Your task to perform on an android device: Do I have any events this weekend? Image 0: 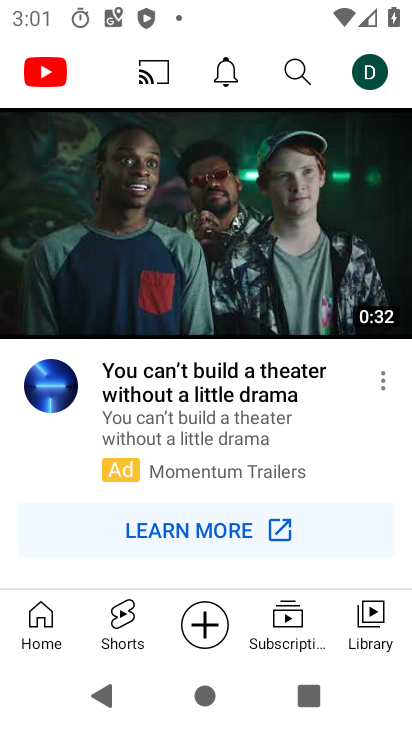
Step 0: press home button
Your task to perform on an android device: Do I have any events this weekend? Image 1: 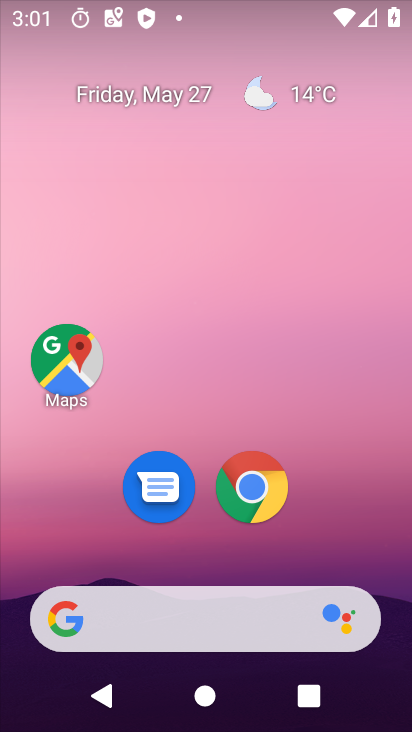
Step 1: drag from (326, 530) to (361, 103)
Your task to perform on an android device: Do I have any events this weekend? Image 2: 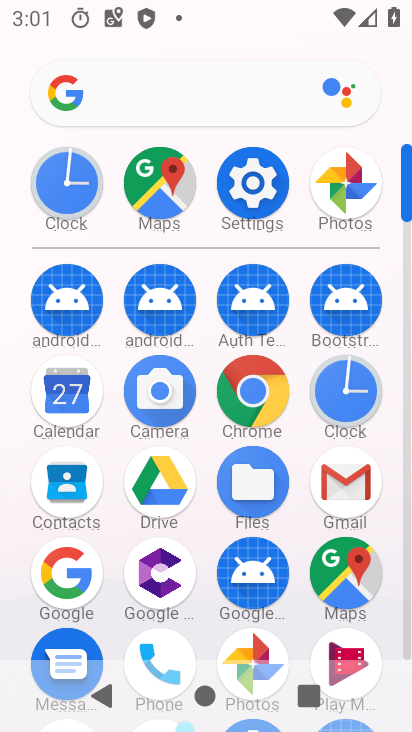
Step 2: click (58, 395)
Your task to perform on an android device: Do I have any events this weekend? Image 3: 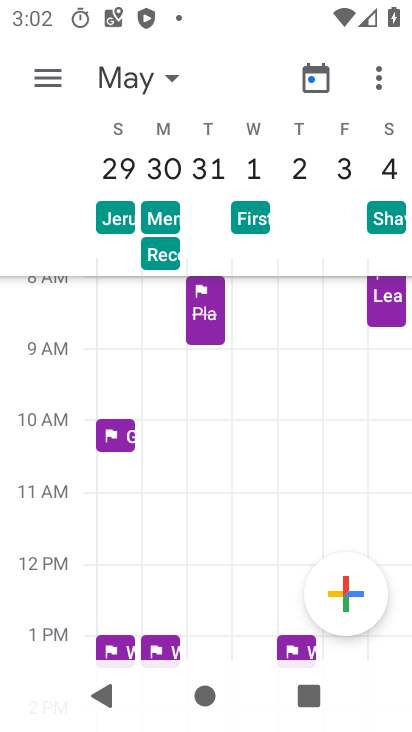
Step 3: click (38, 84)
Your task to perform on an android device: Do I have any events this weekend? Image 4: 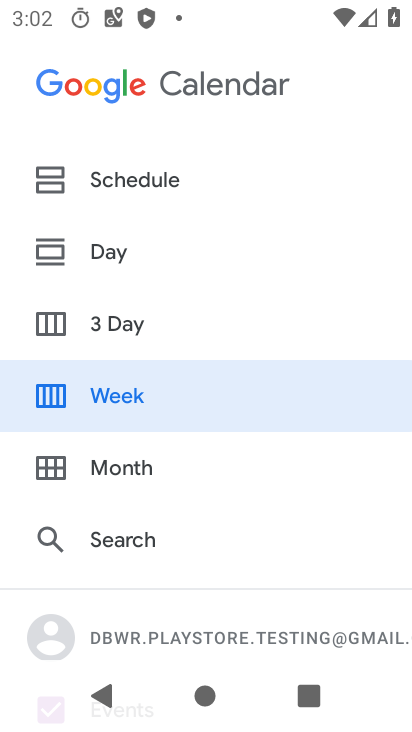
Step 4: click (110, 330)
Your task to perform on an android device: Do I have any events this weekend? Image 5: 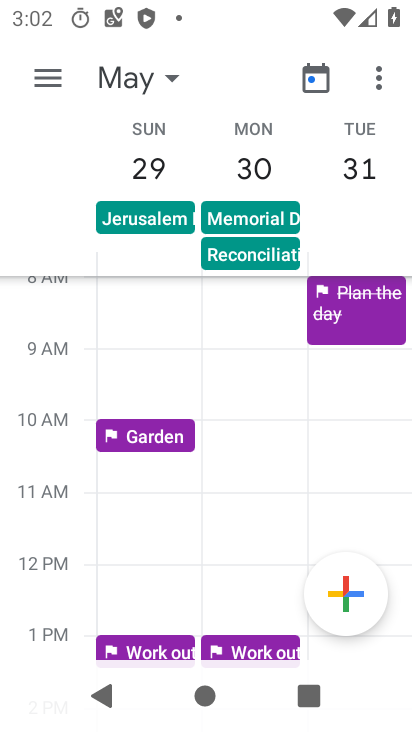
Step 5: task complete